Your task to perform on an android device: open chrome and create a bookmark for the current page Image 0: 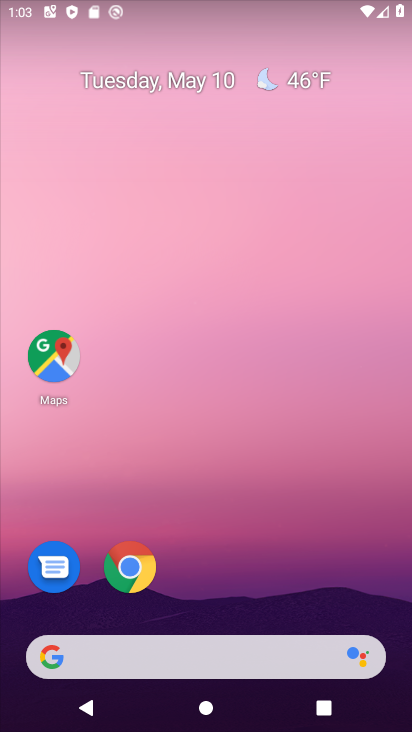
Step 0: click (148, 569)
Your task to perform on an android device: open chrome and create a bookmark for the current page Image 1: 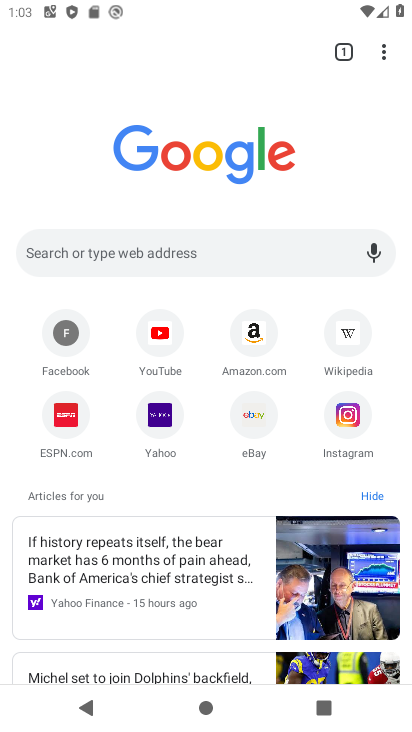
Step 1: task complete